Your task to perform on an android device: Open Youtube and go to "Your channel" Image 0: 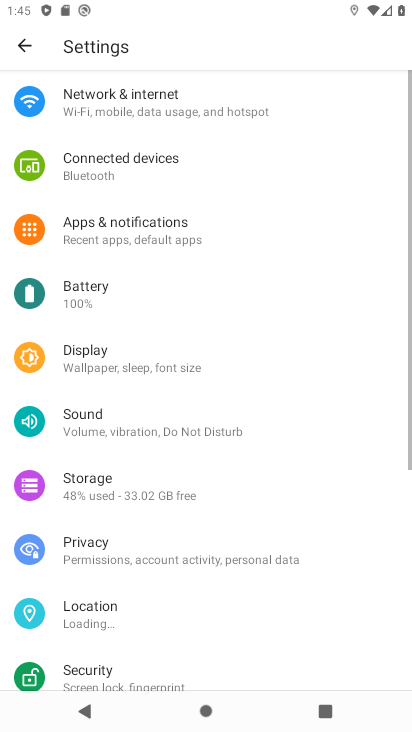
Step 0: press home button
Your task to perform on an android device: Open Youtube and go to "Your channel" Image 1: 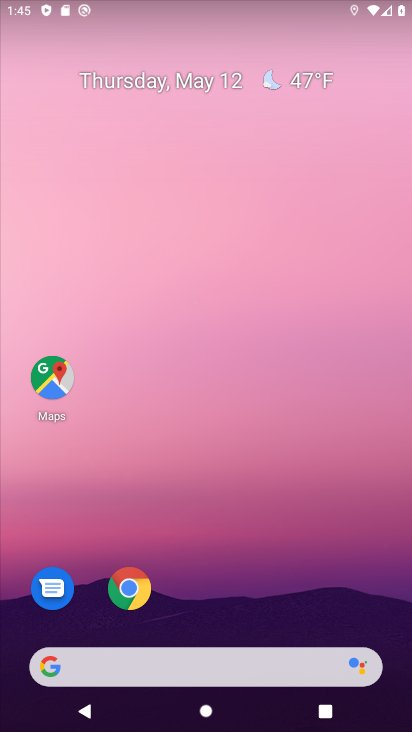
Step 1: drag from (380, 628) to (216, 26)
Your task to perform on an android device: Open Youtube and go to "Your channel" Image 2: 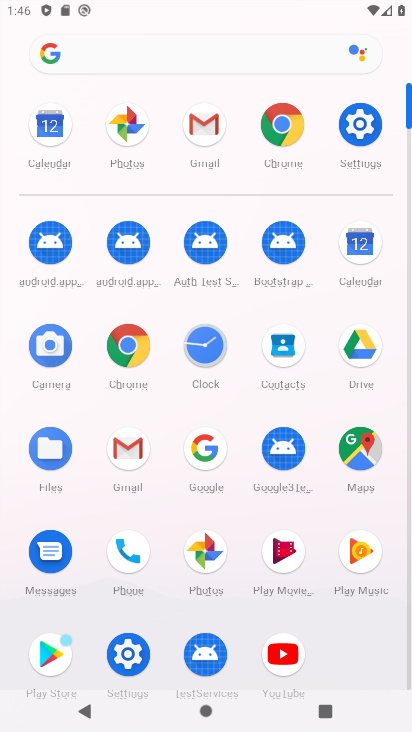
Step 2: click (283, 642)
Your task to perform on an android device: Open Youtube and go to "Your channel" Image 3: 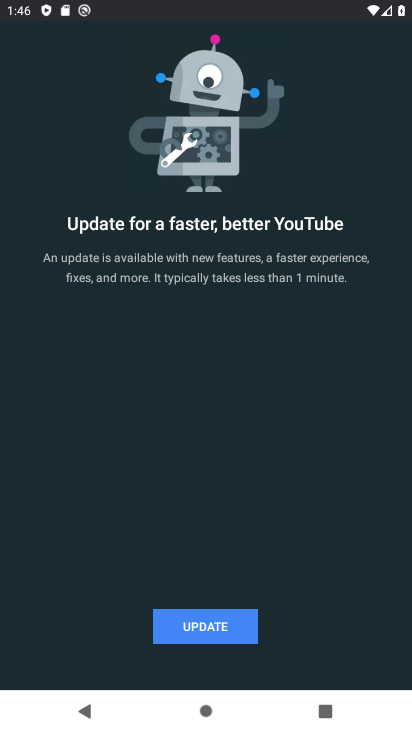
Step 3: click (188, 626)
Your task to perform on an android device: Open Youtube and go to "Your channel" Image 4: 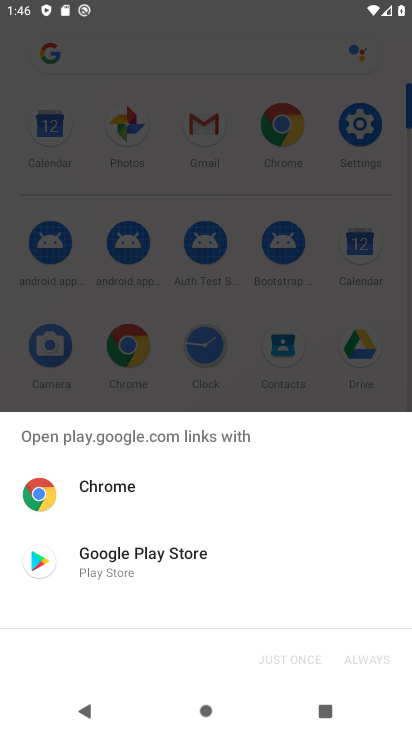
Step 4: click (187, 550)
Your task to perform on an android device: Open Youtube and go to "Your channel" Image 5: 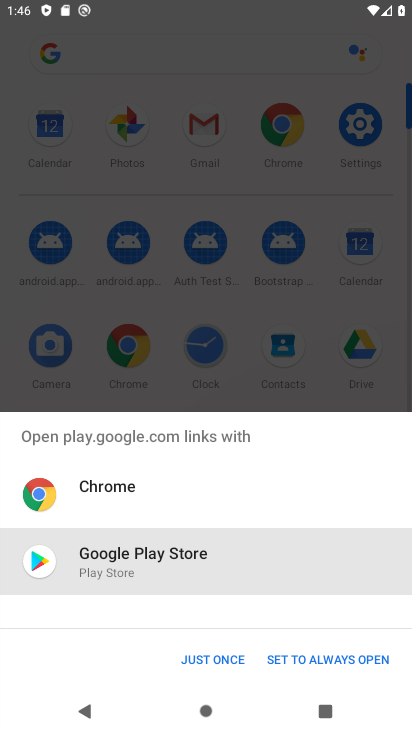
Step 5: click (208, 663)
Your task to perform on an android device: Open Youtube and go to "Your channel" Image 6: 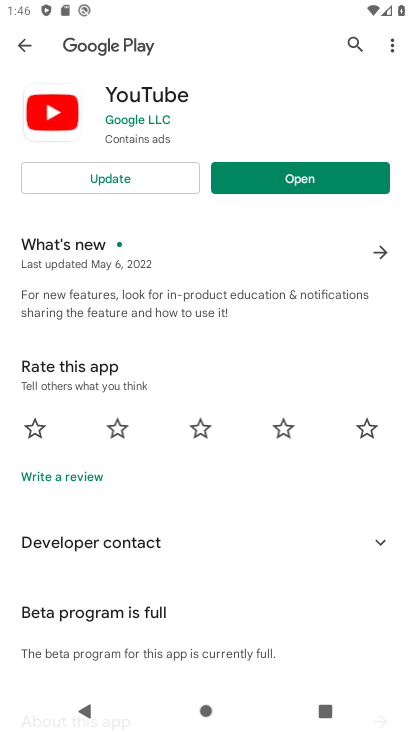
Step 6: click (161, 168)
Your task to perform on an android device: Open Youtube and go to "Your channel" Image 7: 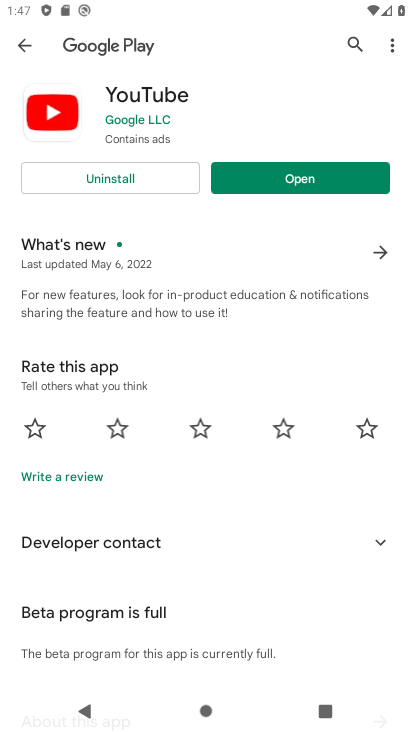
Step 7: click (270, 176)
Your task to perform on an android device: Open Youtube and go to "Your channel" Image 8: 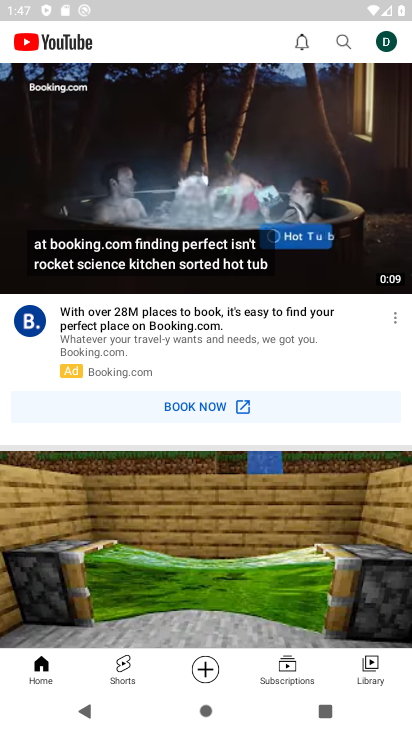
Step 8: click (389, 41)
Your task to perform on an android device: Open Youtube and go to "Your channel" Image 9: 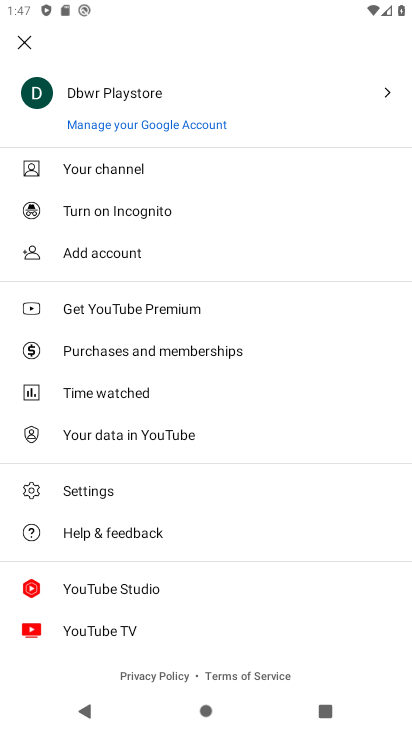
Step 9: click (162, 163)
Your task to perform on an android device: Open Youtube and go to "Your channel" Image 10: 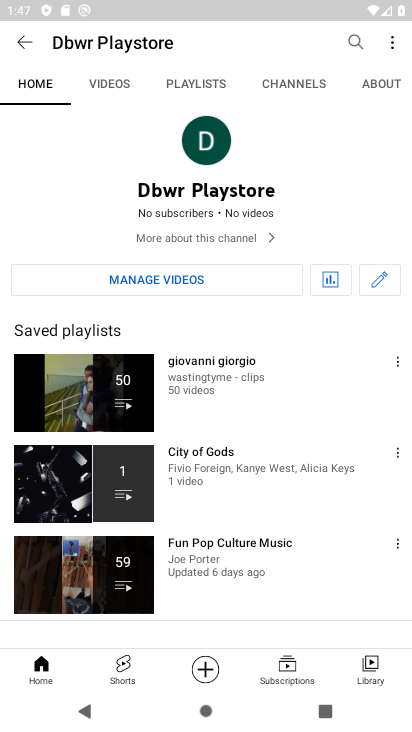
Step 10: task complete